Your task to perform on an android device: Open Maps and search for coffee Image 0: 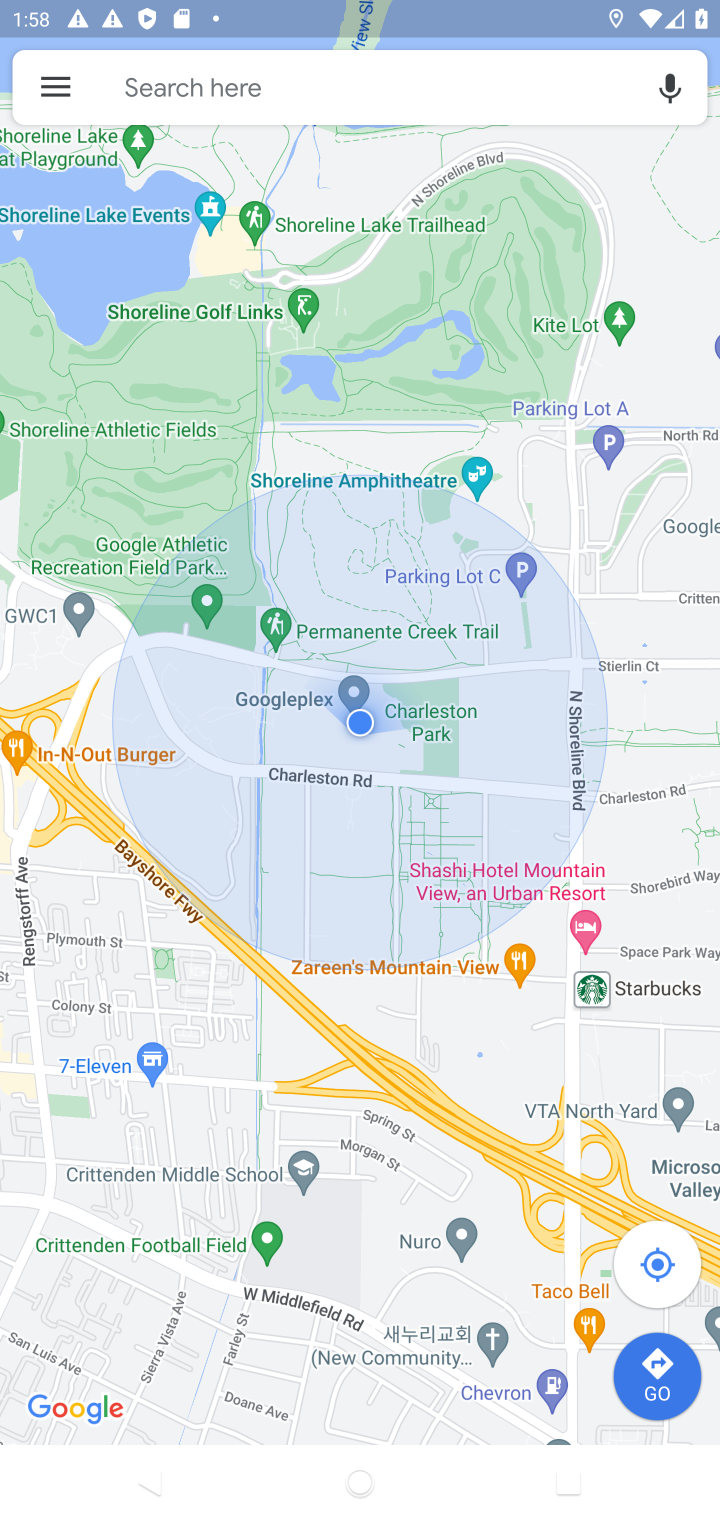
Step 0: click (249, 94)
Your task to perform on an android device: Open Maps and search for coffee Image 1: 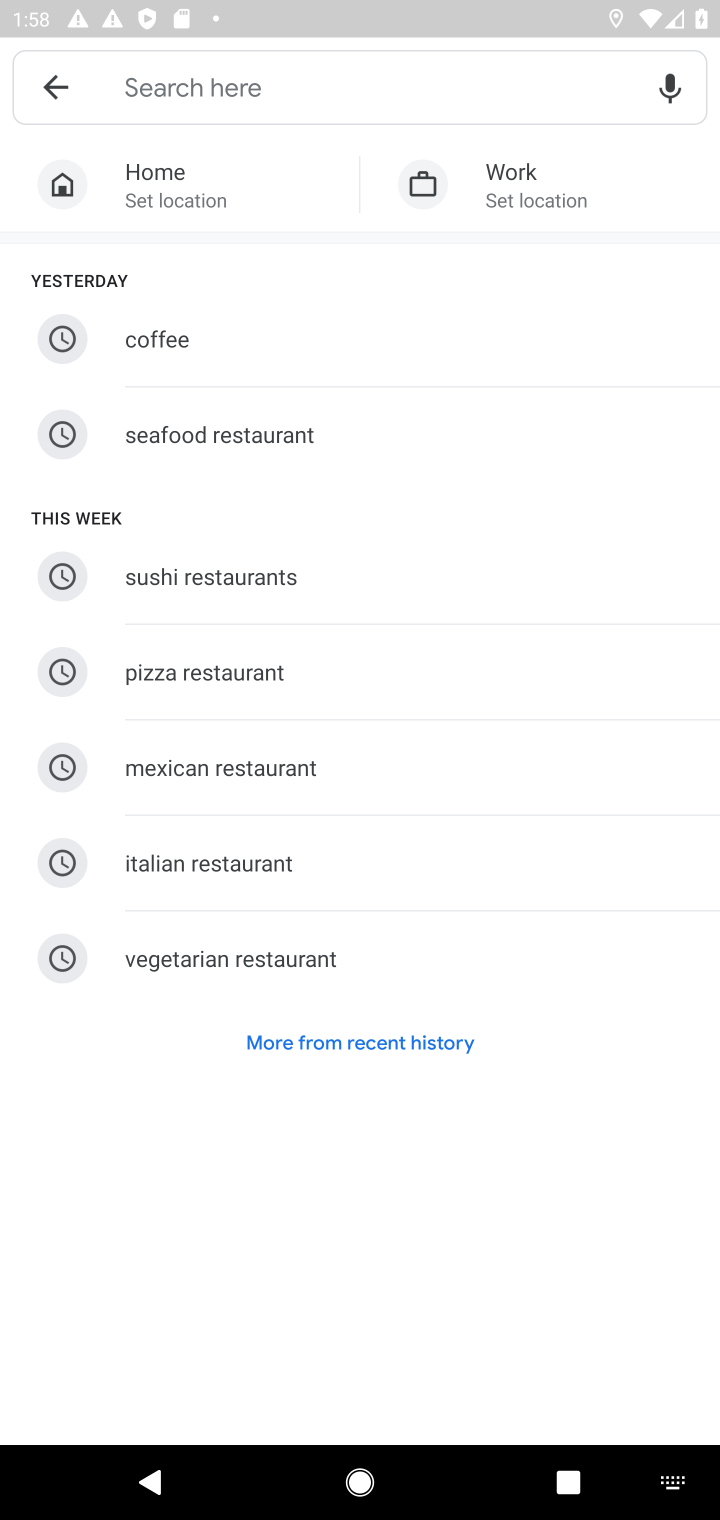
Step 1: click (141, 330)
Your task to perform on an android device: Open Maps and search for coffee Image 2: 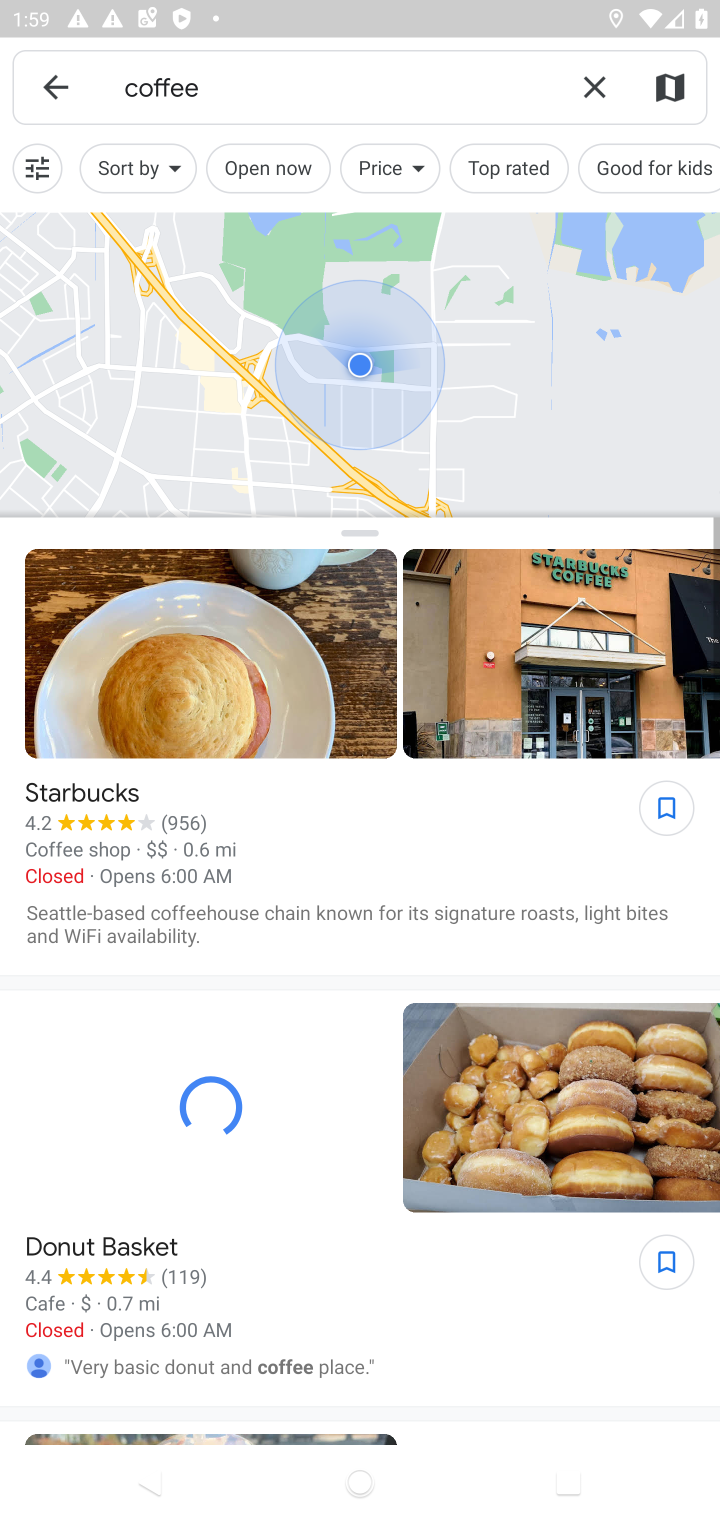
Step 2: task complete